Your task to perform on an android device: open a new tab in the chrome app Image 0: 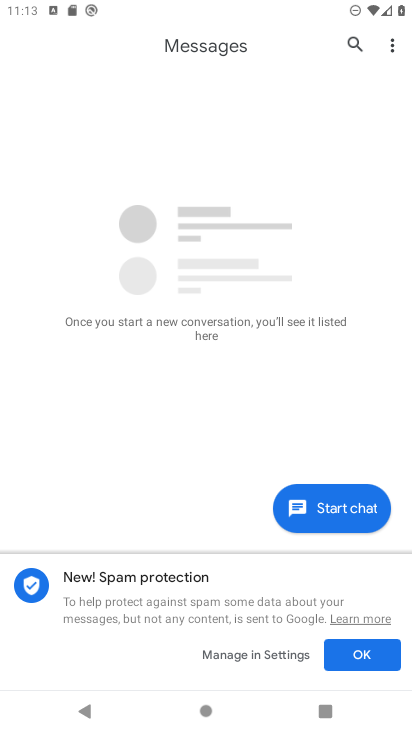
Step 0: press home button
Your task to perform on an android device: open a new tab in the chrome app Image 1: 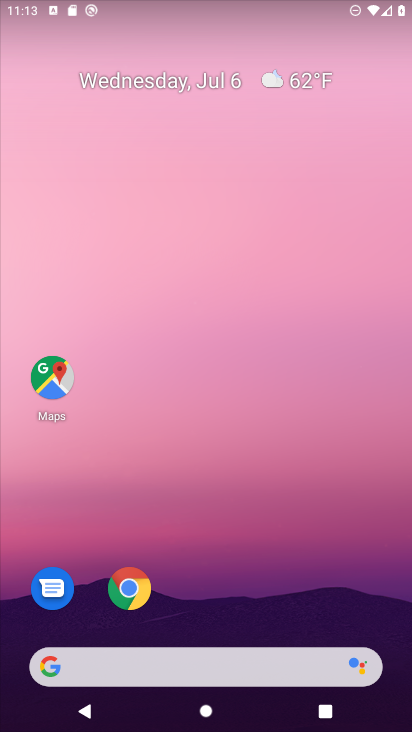
Step 1: click (129, 588)
Your task to perform on an android device: open a new tab in the chrome app Image 2: 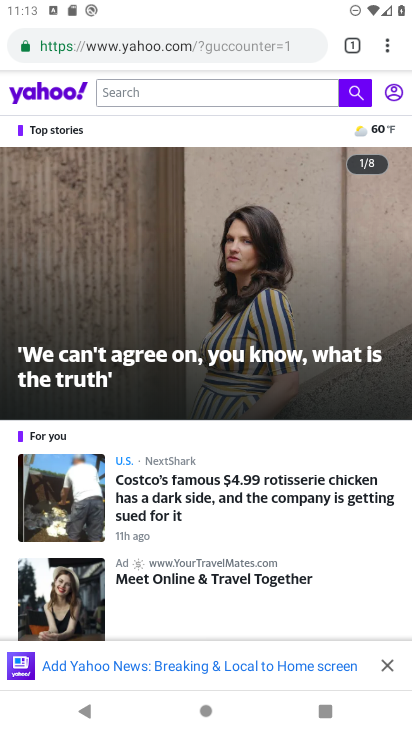
Step 2: click (385, 53)
Your task to perform on an android device: open a new tab in the chrome app Image 3: 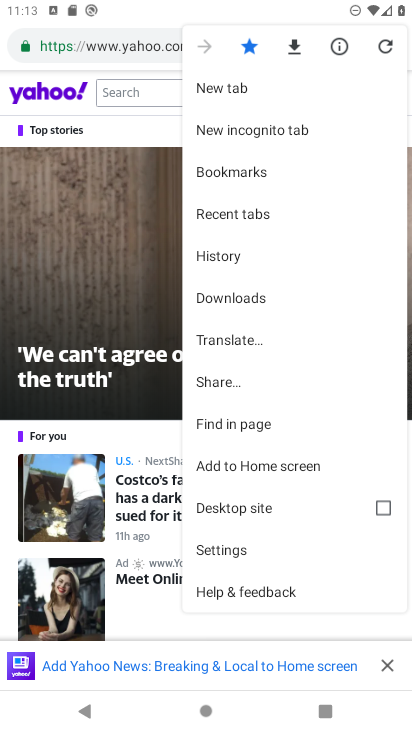
Step 3: click (211, 87)
Your task to perform on an android device: open a new tab in the chrome app Image 4: 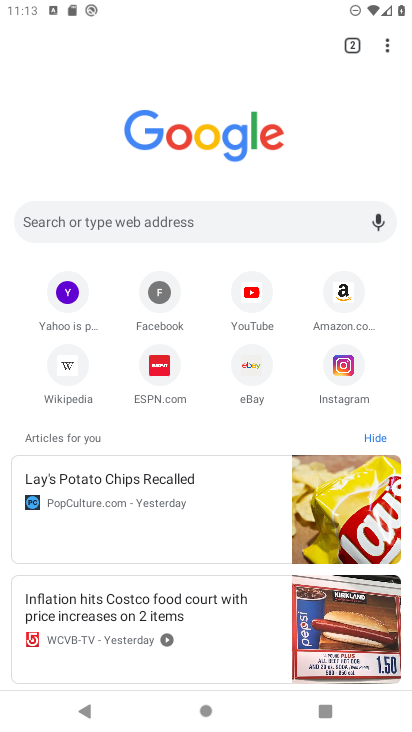
Step 4: task complete